Your task to perform on an android device: allow notifications from all sites in the chrome app Image 0: 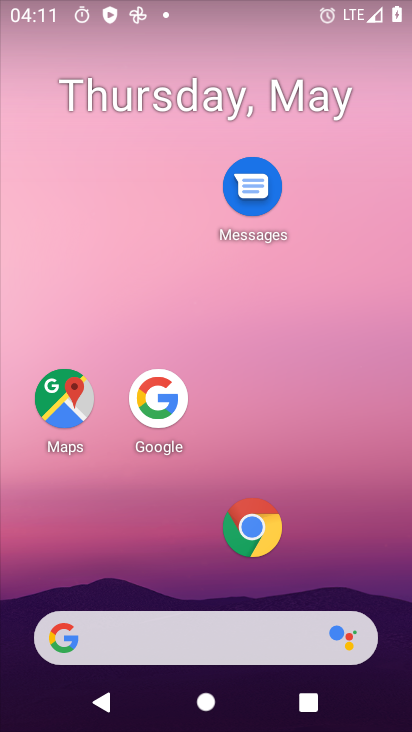
Step 0: drag from (182, 599) to (253, 148)
Your task to perform on an android device: allow notifications from all sites in the chrome app Image 1: 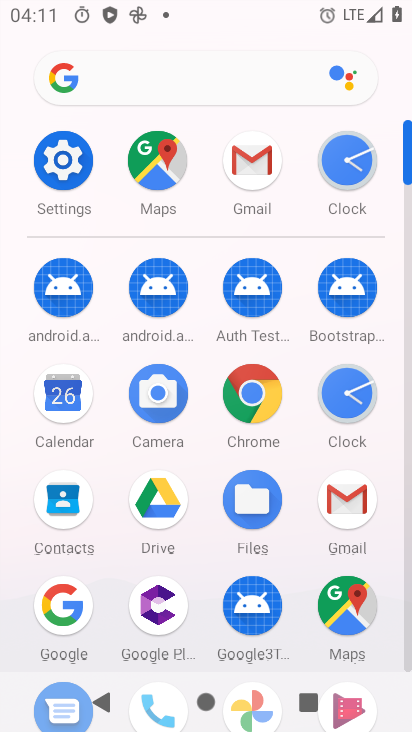
Step 1: click (264, 382)
Your task to perform on an android device: allow notifications from all sites in the chrome app Image 2: 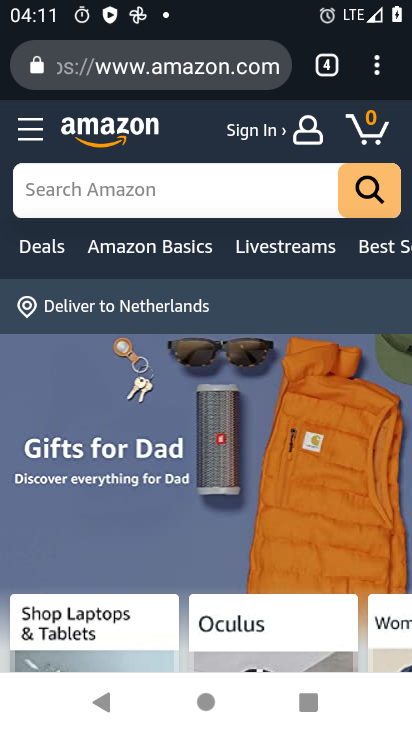
Step 2: click (383, 75)
Your task to perform on an android device: allow notifications from all sites in the chrome app Image 3: 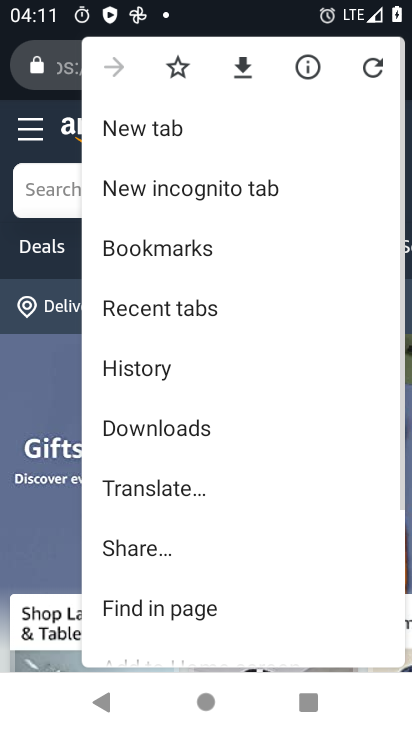
Step 3: drag from (220, 627) to (306, 84)
Your task to perform on an android device: allow notifications from all sites in the chrome app Image 4: 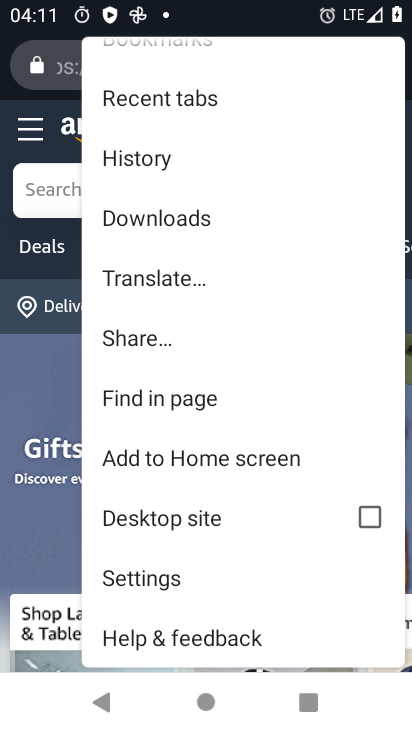
Step 4: click (166, 587)
Your task to perform on an android device: allow notifications from all sites in the chrome app Image 5: 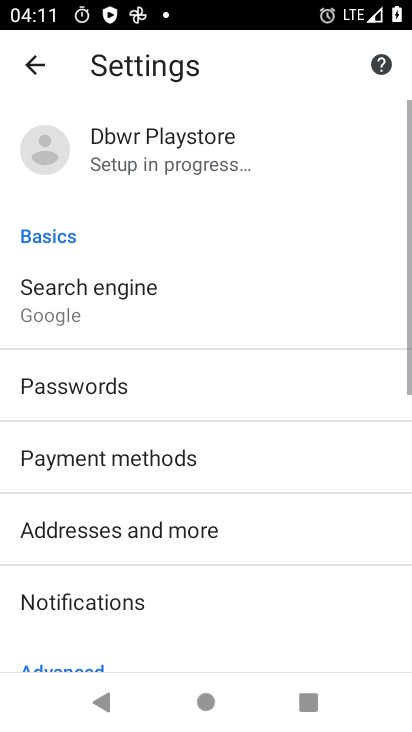
Step 5: drag from (253, 543) to (290, 227)
Your task to perform on an android device: allow notifications from all sites in the chrome app Image 6: 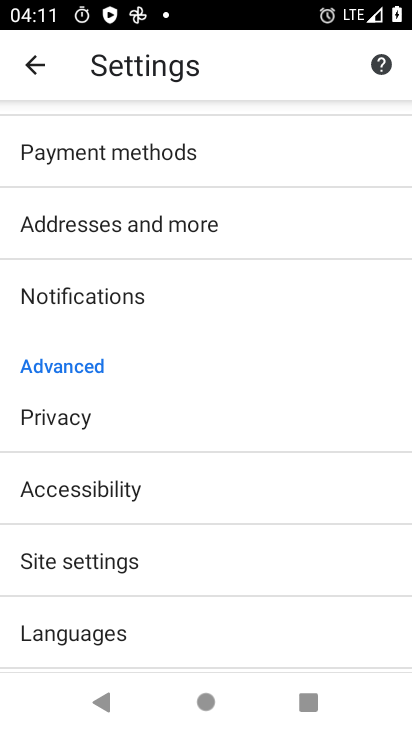
Step 6: click (142, 565)
Your task to perform on an android device: allow notifications from all sites in the chrome app Image 7: 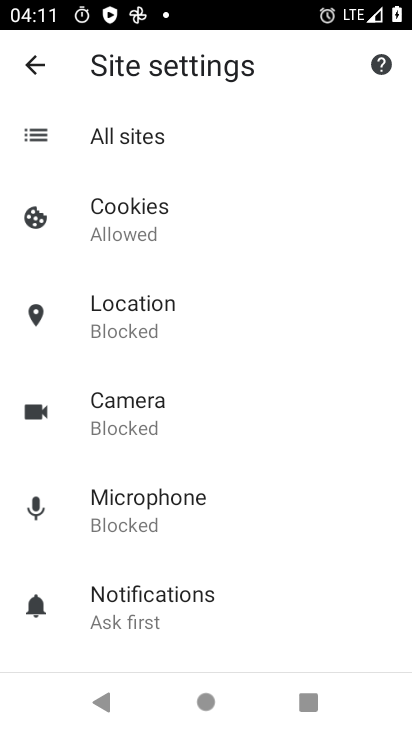
Step 7: drag from (184, 522) to (261, 229)
Your task to perform on an android device: allow notifications from all sites in the chrome app Image 8: 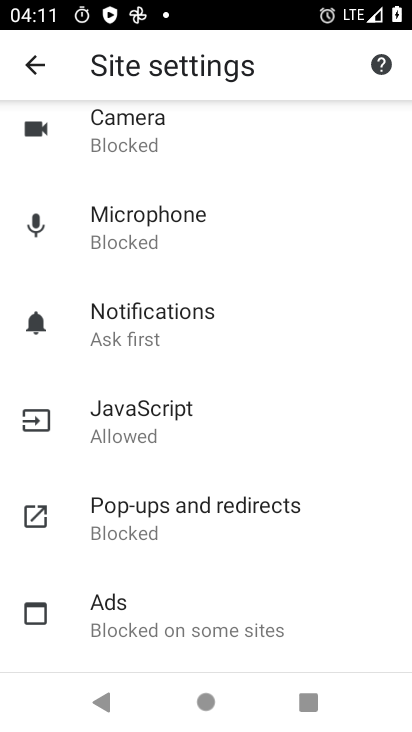
Step 8: click (169, 300)
Your task to perform on an android device: allow notifications from all sites in the chrome app Image 9: 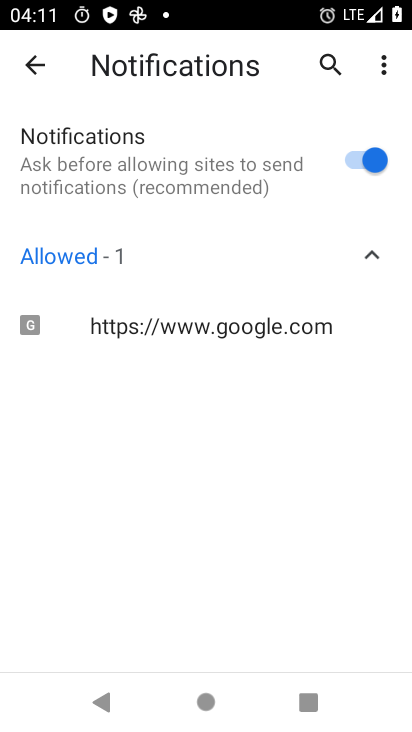
Step 9: task complete